Your task to perform on an android device: Is it going to rain this weekend? Image 0: 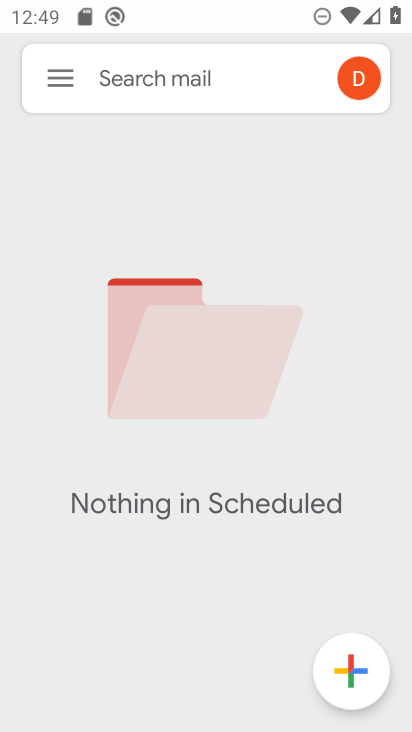
Step 0: press home button
Your task to perform on an android device: Is it going to rain this weekend? Image 1: 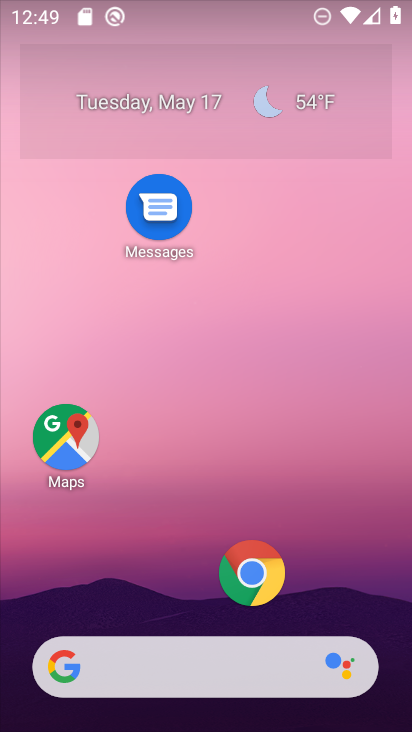
Step 1: click (305, 97)
Your task to perform on an android device: Is it going to rain this weekend? Image 2: 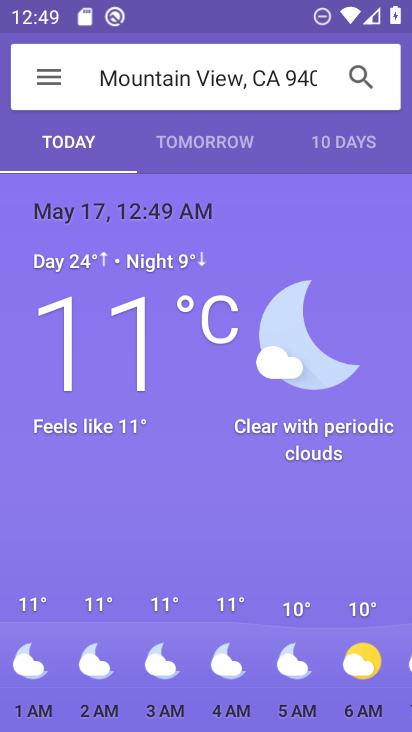
Step 2: click (346, 147)
Your task to perform on an android device: Is it going to rain this weekend? Image 3: 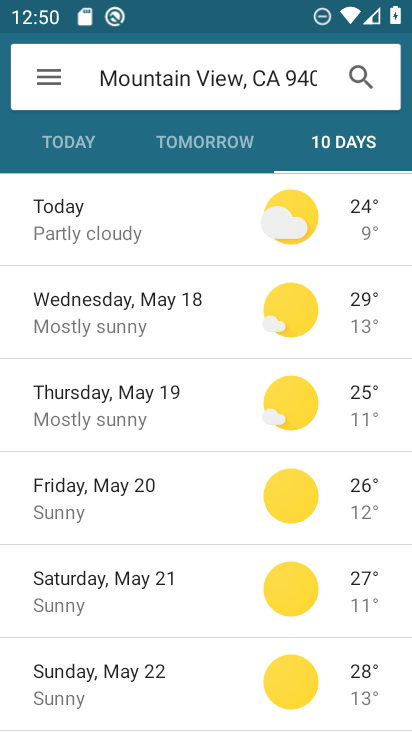
Step 3: task complete